Your task to perform on an android device: turn off priority inbox in the gmail app Image 0: 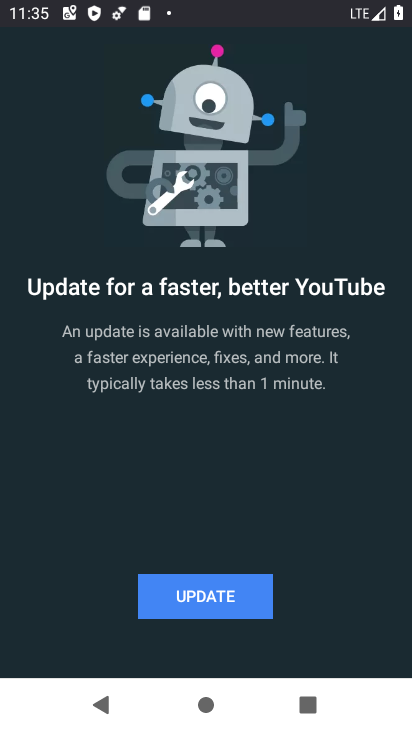
Step 0: press home button
Your task to perform on an android device: turn off priority inbox in the gmail app Image 1: 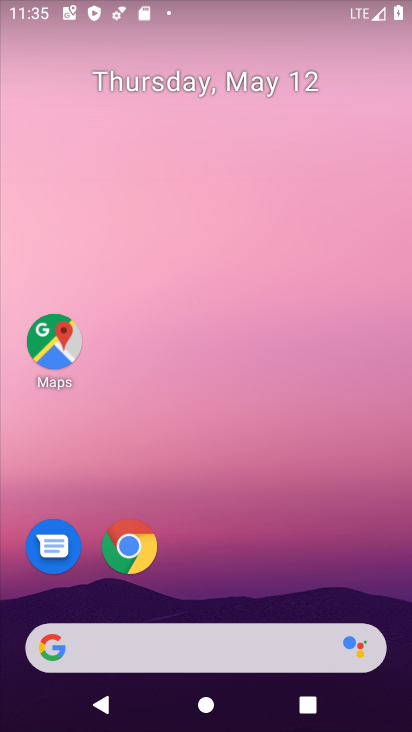
Step 1: drag from (225, 564) to (183, 3)
Your task to perform on an android device: turn off priority inbox in the gmail app Image 2: 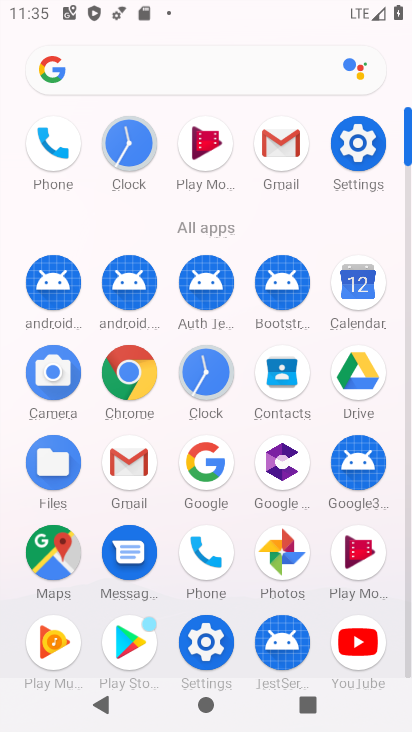
Step 2: click (288, 151)
Your task to perform on an android device: turn off priority inbox in the gmail app Image 3: 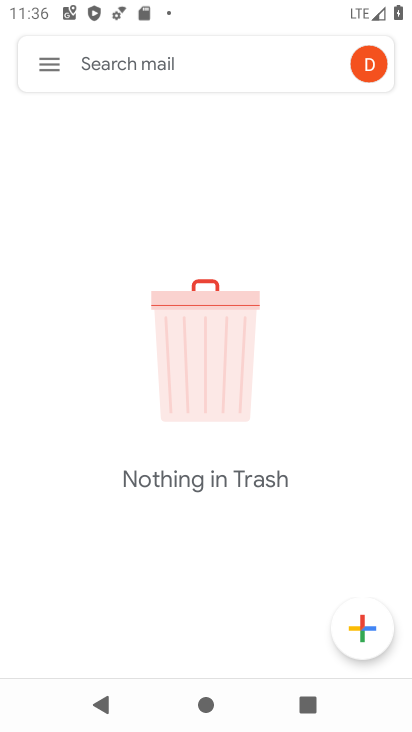
Step 3: click (49, 67)
Your task to perform on an android device: turn off priority inbox in the gmail app Image 4: 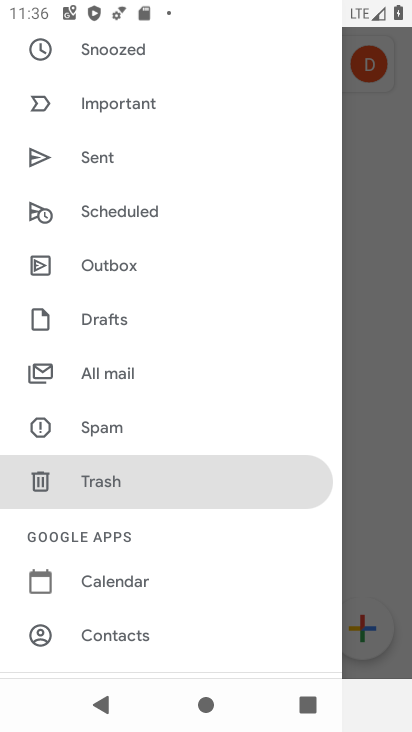
Step 4: drag from (168, 611) to (158, 275)
Your task to perform on an android device: turn off priority inbox in the gmail app Image 5: 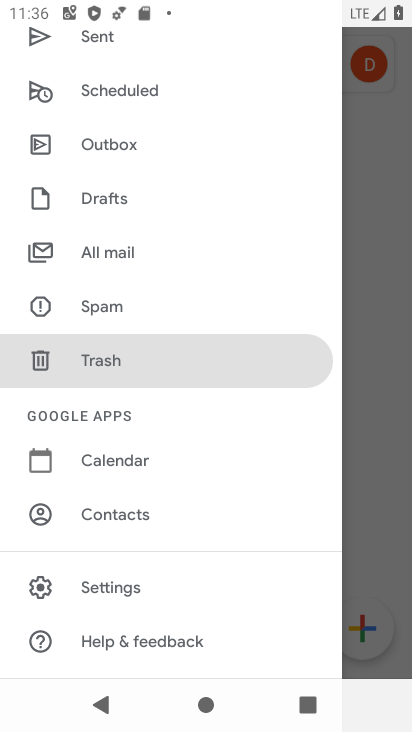
Step 5: click (126, 576)
Your task to perform on an android device: turn off priority inbox in the gmail app Image 6: 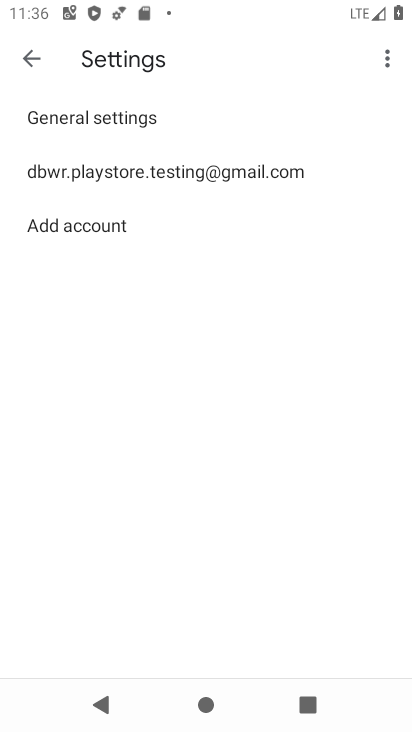
Step 6: click (215, 164)
Your task to perform on an android device: turn off priority inbox in the gmail app Image 7: 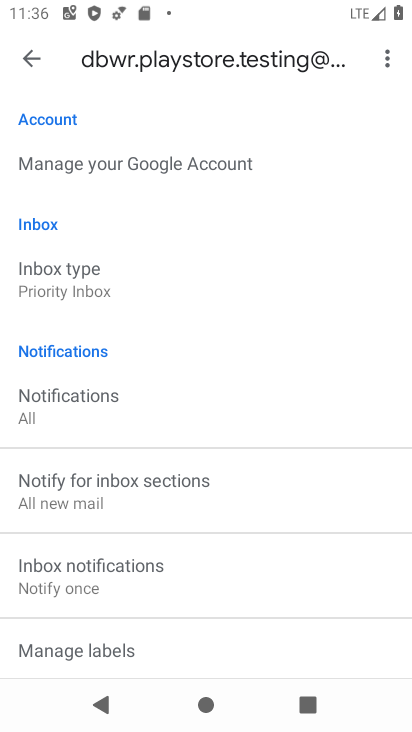
Step 7: click (52, 275)
Your task to perform on an android device: turn off priority inbox in the gmail app Image 8: 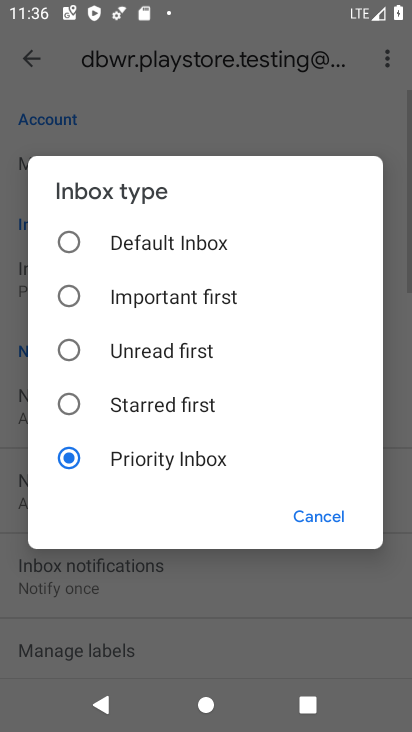
Step 8: click (82, 243)
Your task to perform on an android device: turn off priority inbox in the gmail app Image 9: 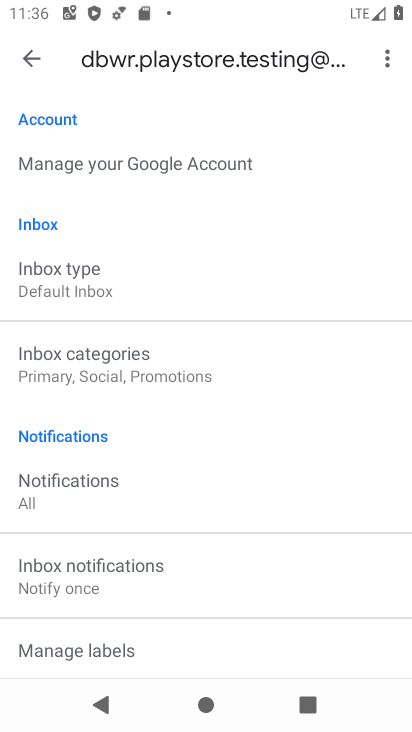
Step 9: task complete